Your task to perform on an android device: turn off wifi Image 0: 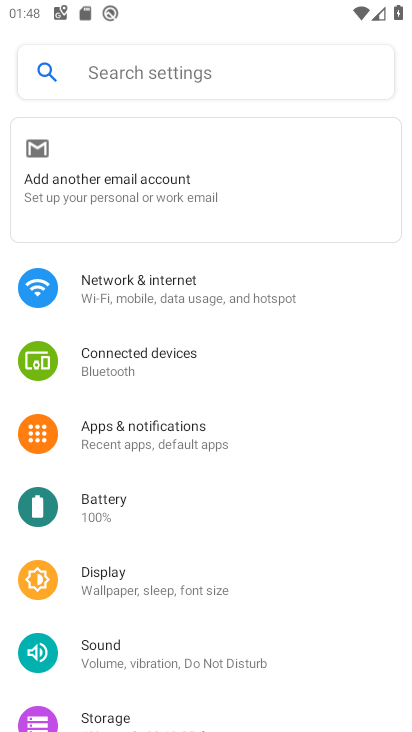
Step 0: click (109, 257)
Your task to perform on an android device: turn off wifi Image 1: 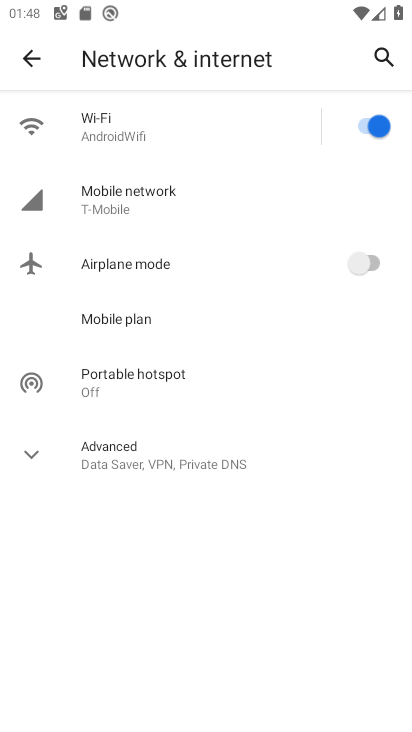
Step 1: click (386, 118)
Your task to perform on an android device: turn off wifi Image 2: 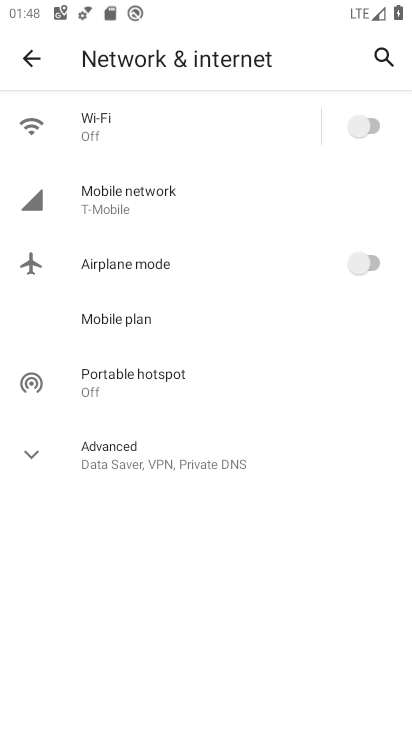
Step 2: task complete